Your task to perform on an android device: allow notifications from all sites in the chrome app Image 0: 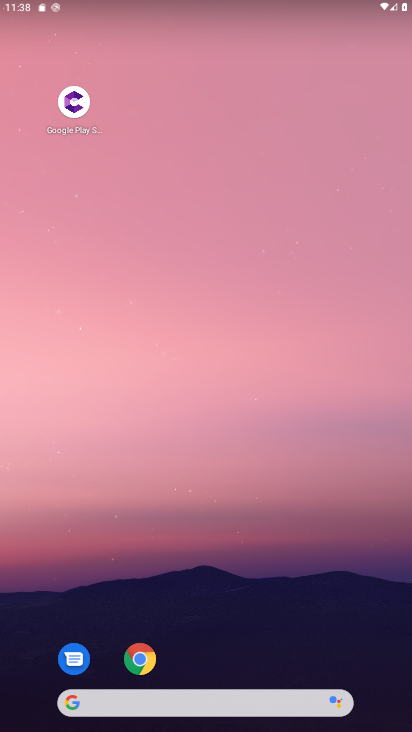
Step 0: click (138, 650)
Your task to perform on an android device: allow notifications from all sites in the chrome app Image 1: 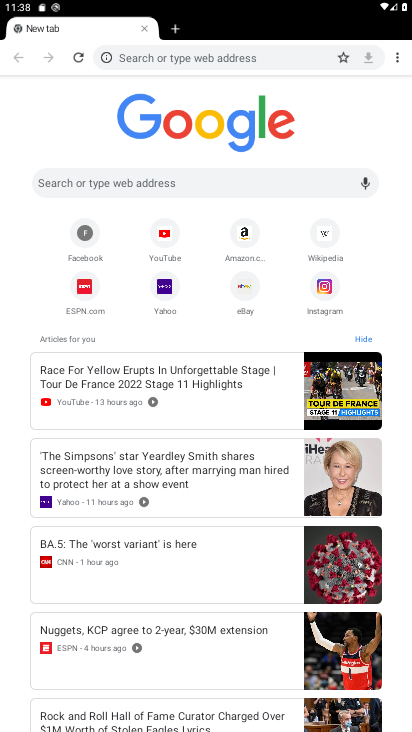
Step 1: click (395, 52)
Your task to perform on an android device: allow notifications from all sites in the chrome app Image 2: 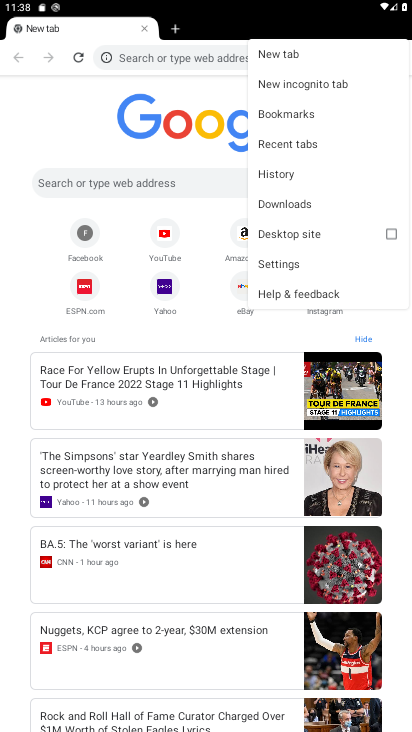
Step 2: click (303, 264)
Your task to perform on an android device: allow notifications from all sites in the chrome app Image 3: 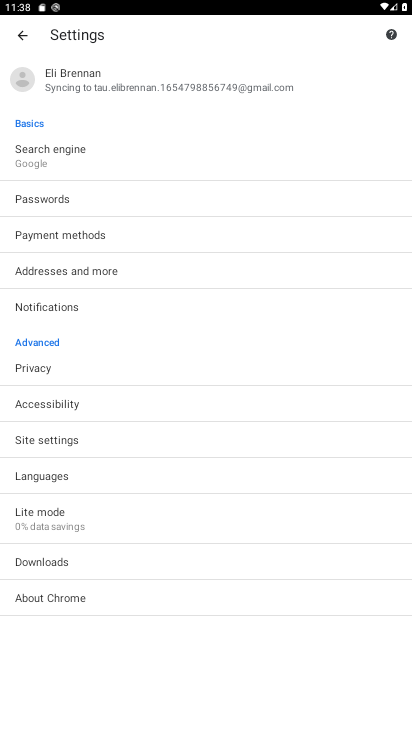
Step 3: click (71, 435)
Your task to perform on an android device: allow notifications from all sites in the chrome app Image 4: 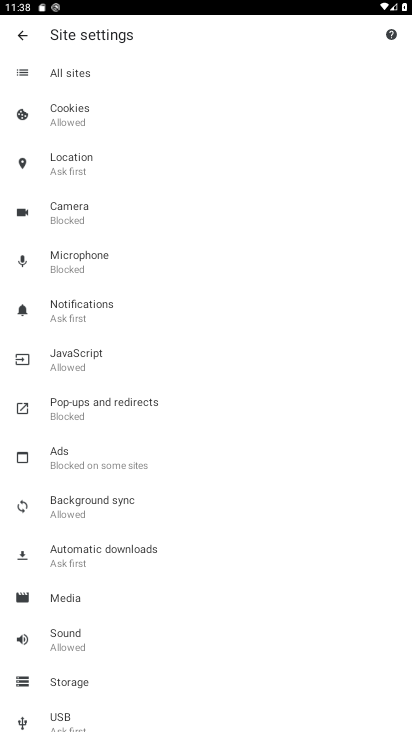
Step 4: click (73, 114)
Your task to perform on an android device: allow notifications from all sites in the chrome app Image 5: 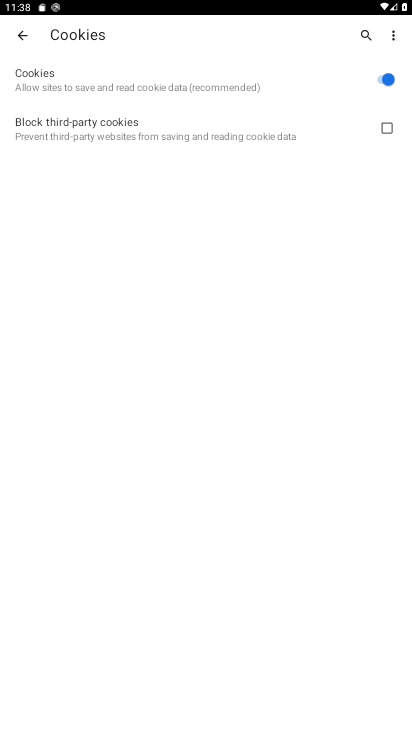
Step 5: task complete